Your task to perform on an android device: Check the weather Image 0: 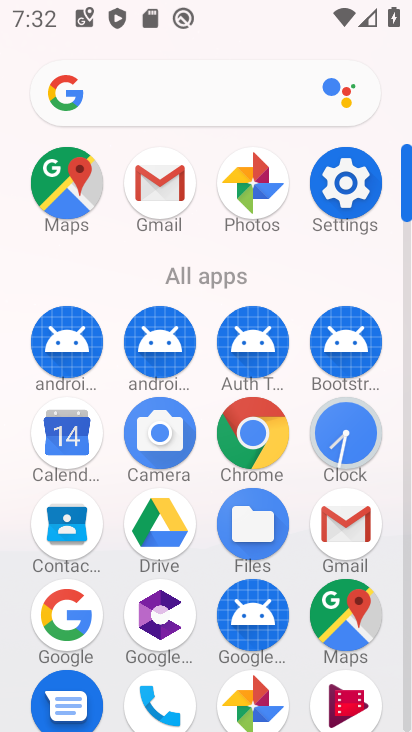
Step 0: press home button
Your task to perform on an android device: Check the weather Image 1: 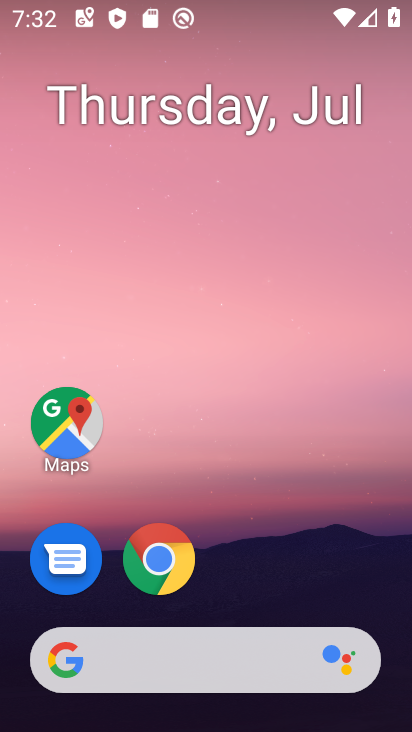
Step 1: click (213, 656)
Your task to perform on an android device: Check the weather Image 2: 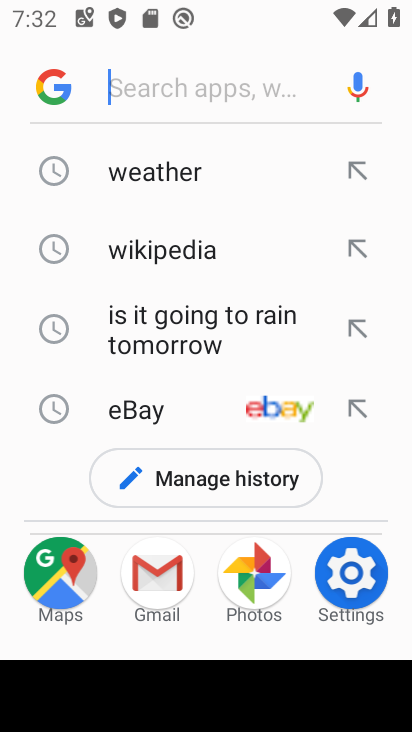
Step 2: click (186, 177)
Your task to perform on an android device: Check the weather Image 3: 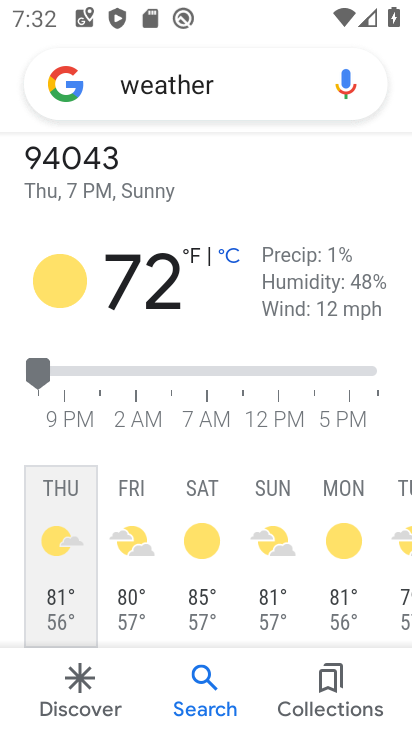
Step 3: task complete